Your task to perform on an android device: Open Google Maps Image 0: 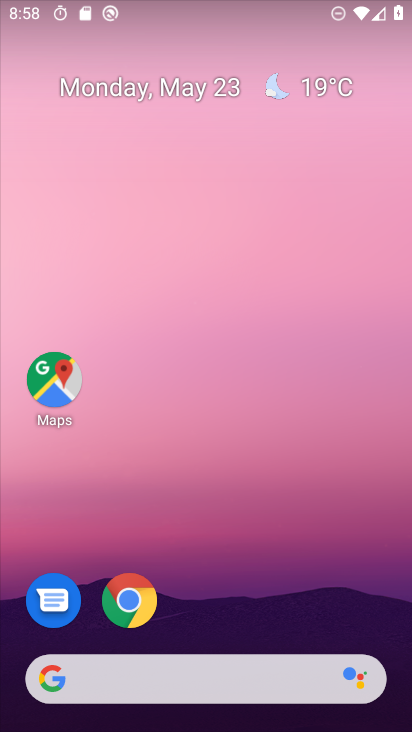
Step 0: press home button
Your task to perform on an android device: Open Google Maps Image 1: 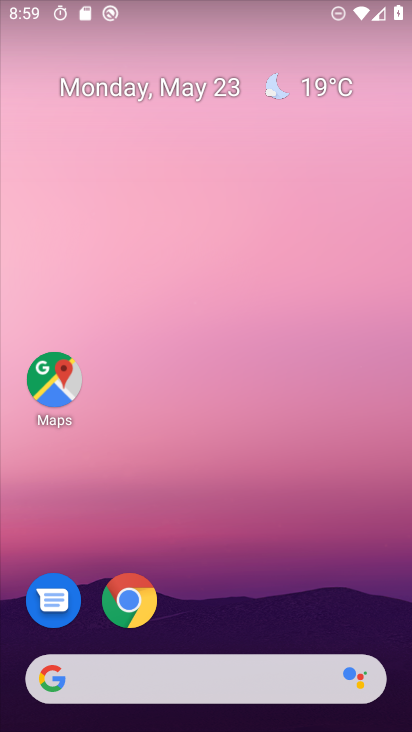
Step 1: click (27, 379)
Your task to perform on an android device: Open Google Maps Image 2: 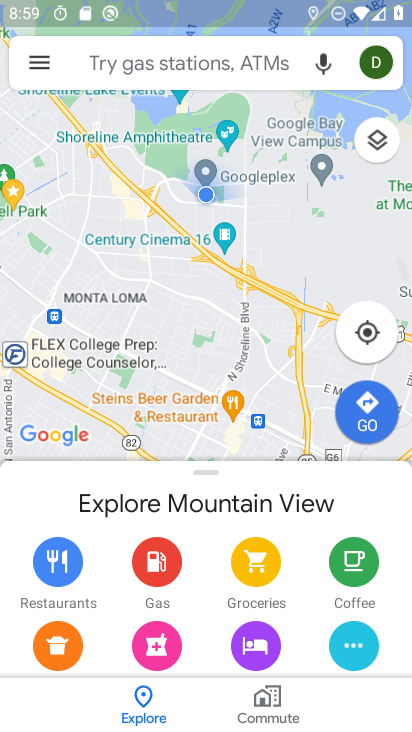
Step 2: task complete